Your task to perform on an android device: Open ESPN.com Image 0: 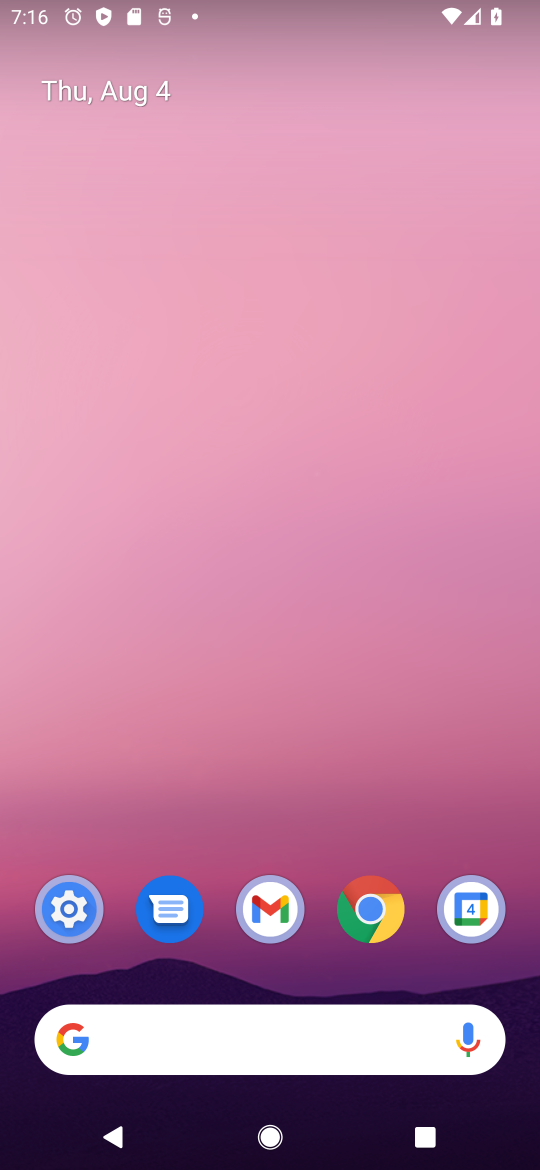
Step 0: drag from (74, 1026) to (183, 142)
Your task to perform on an android device: Open ESPN.com Image 1: 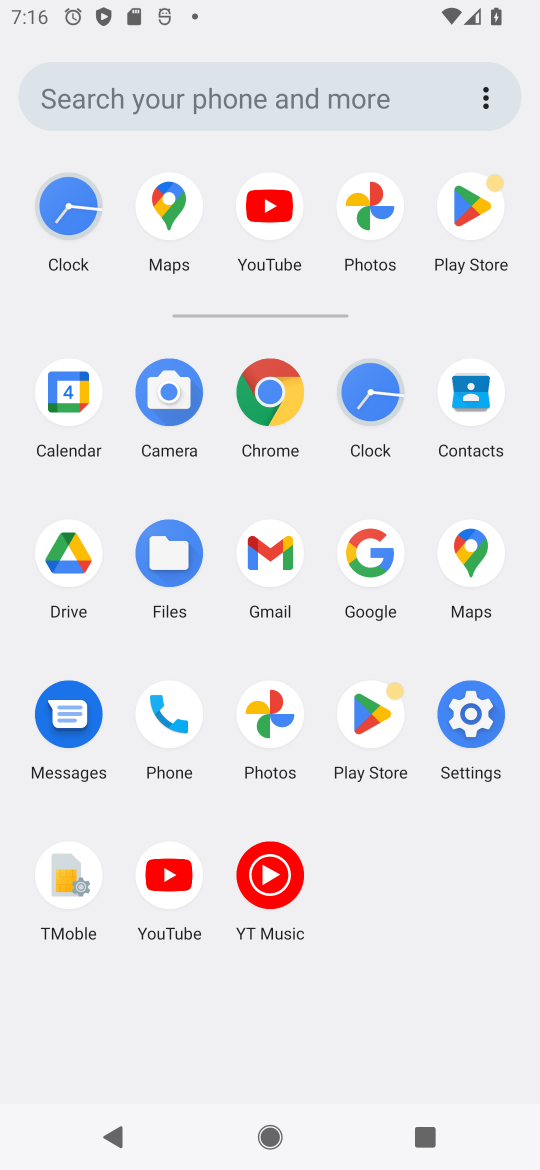
Step 1: click (265, 413)
Your task to perform on an android device: Open ESPN.com Image 2: 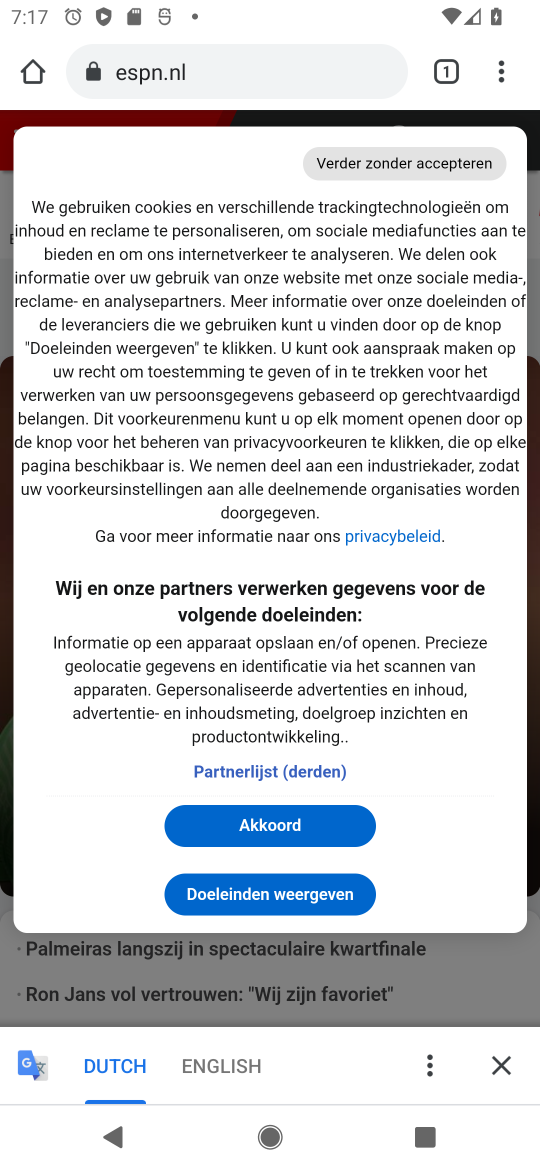
Step 2: task complete